Your task to perform on an android device: Open network settings Image 0: 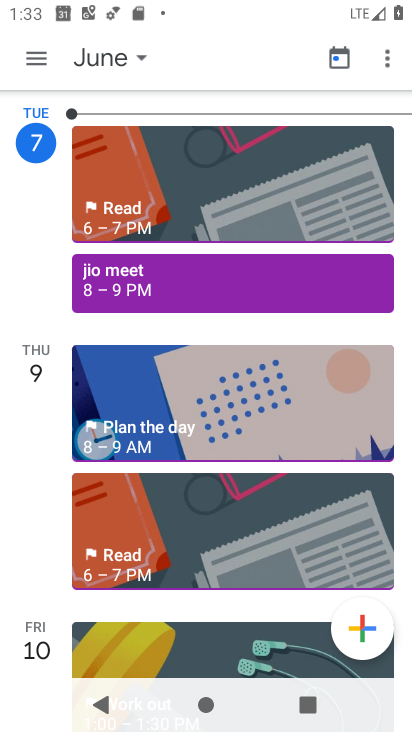
Step 0: press home button
Your task to perform on an android device: Open network settings Image 1: 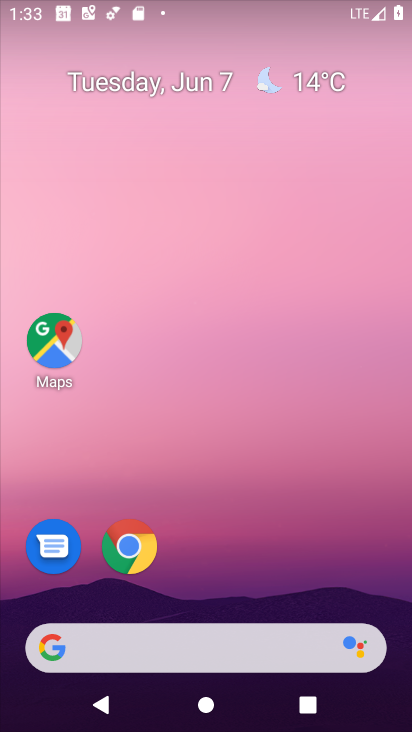
Step 1: drag from (327, 533) to (313, 94)
Your task to perform on an android device: Open network settings Image 2: 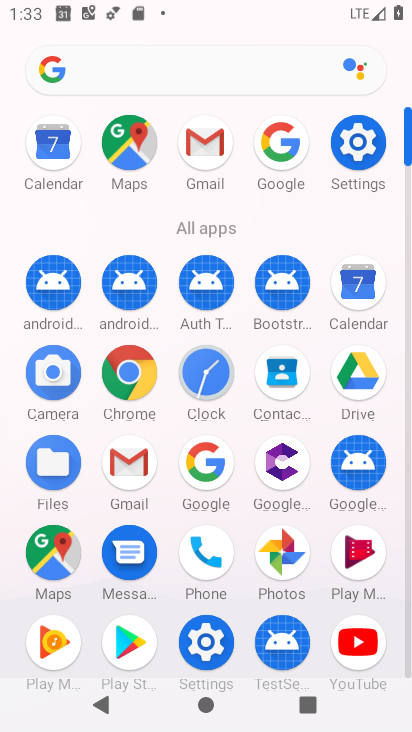
Step 2: click (362, 149)
Your task to perform on an android device: Open network settings Image 3: 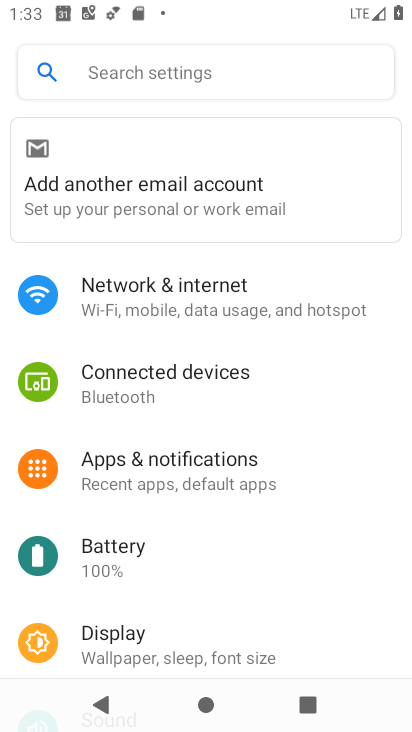
Step 3: click (220, 288)
Your task to perform on an android device: Open network settings Image 4: 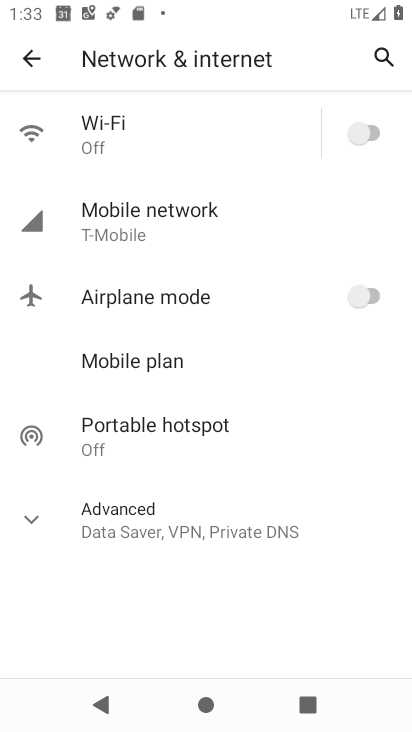
Step 4: click (137, 219)
Your task to perform on an android device: Open network settings Image 5: 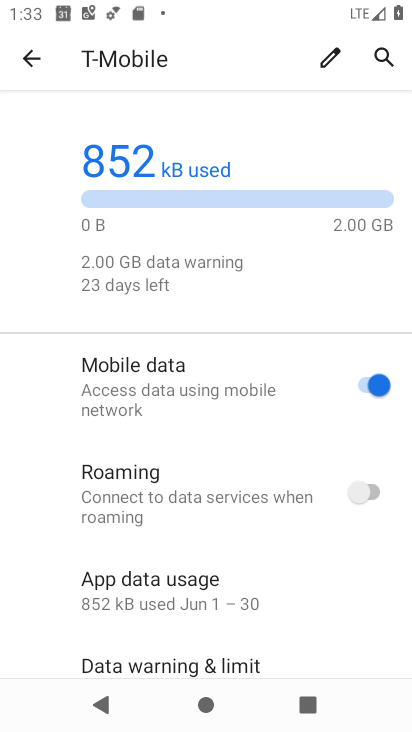
Step 5: task complete